Your task to perform on an android device: turn on priority inbox in the gmail app Image 0: 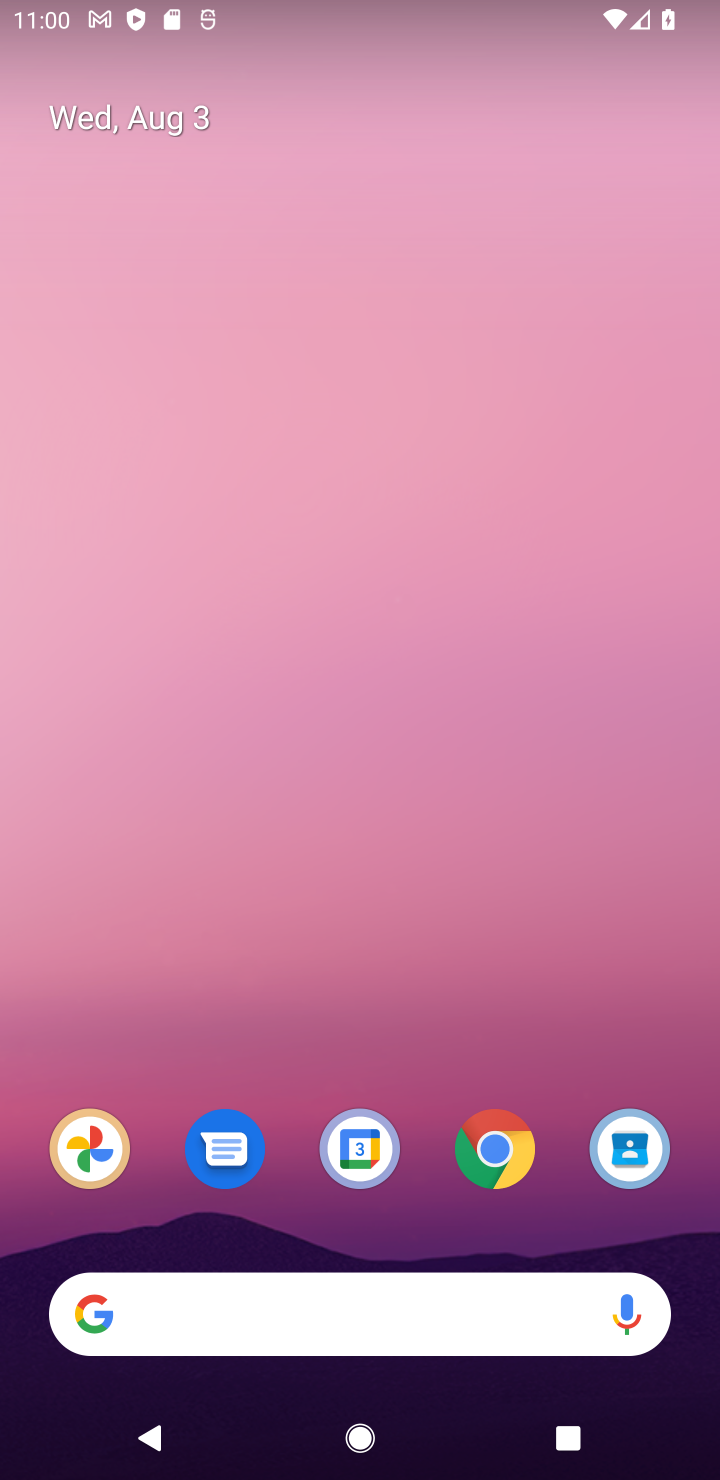
Step 0: drag from (484, 1072) to (431, 37)
Your task to perform on an android device: turn on priority inbox in the gmail app Image 1: 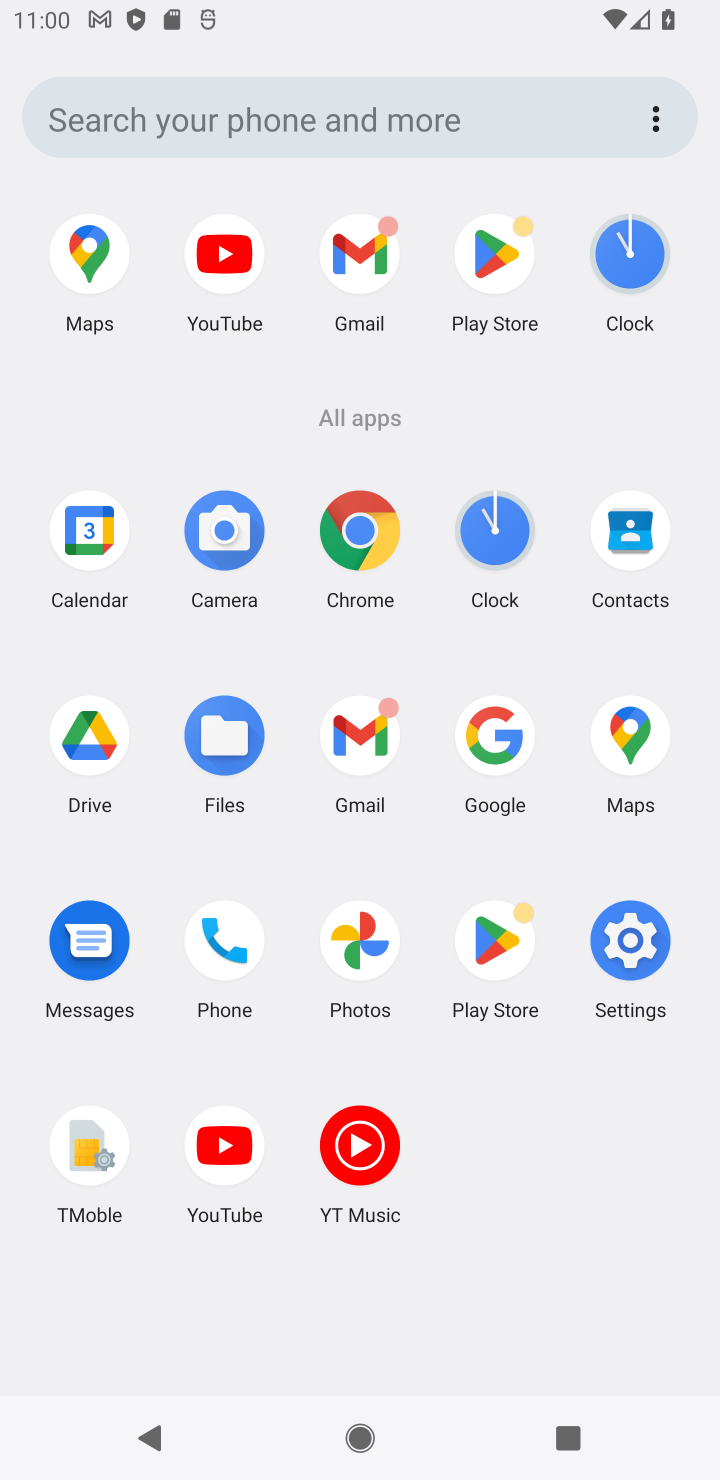
Step 1: click (360, 233)
Your task to perform on an android device: turn on priority inbox in the gmail app Image 2: 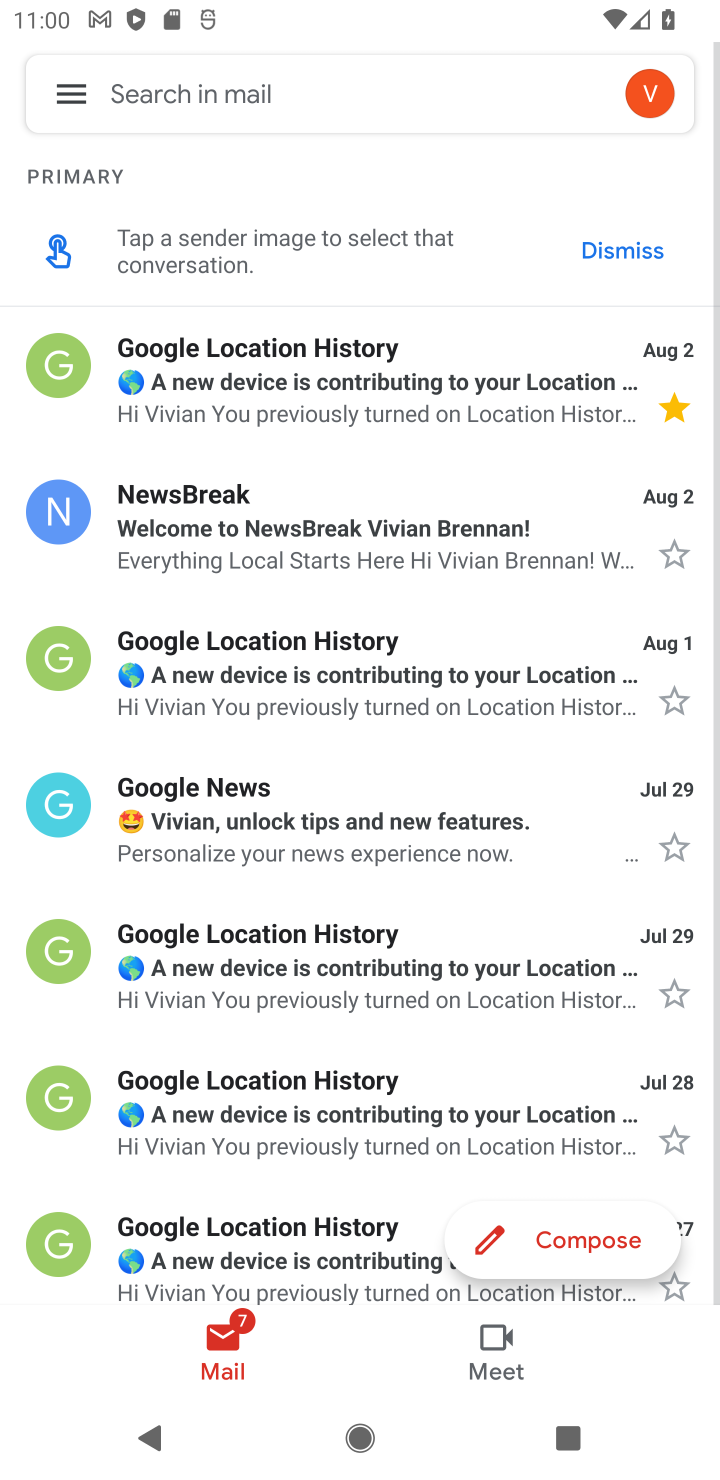
Step 2: click (64, 76)
Your task to perform on an android device: turn on priority inbox in the gmail app Image 3: 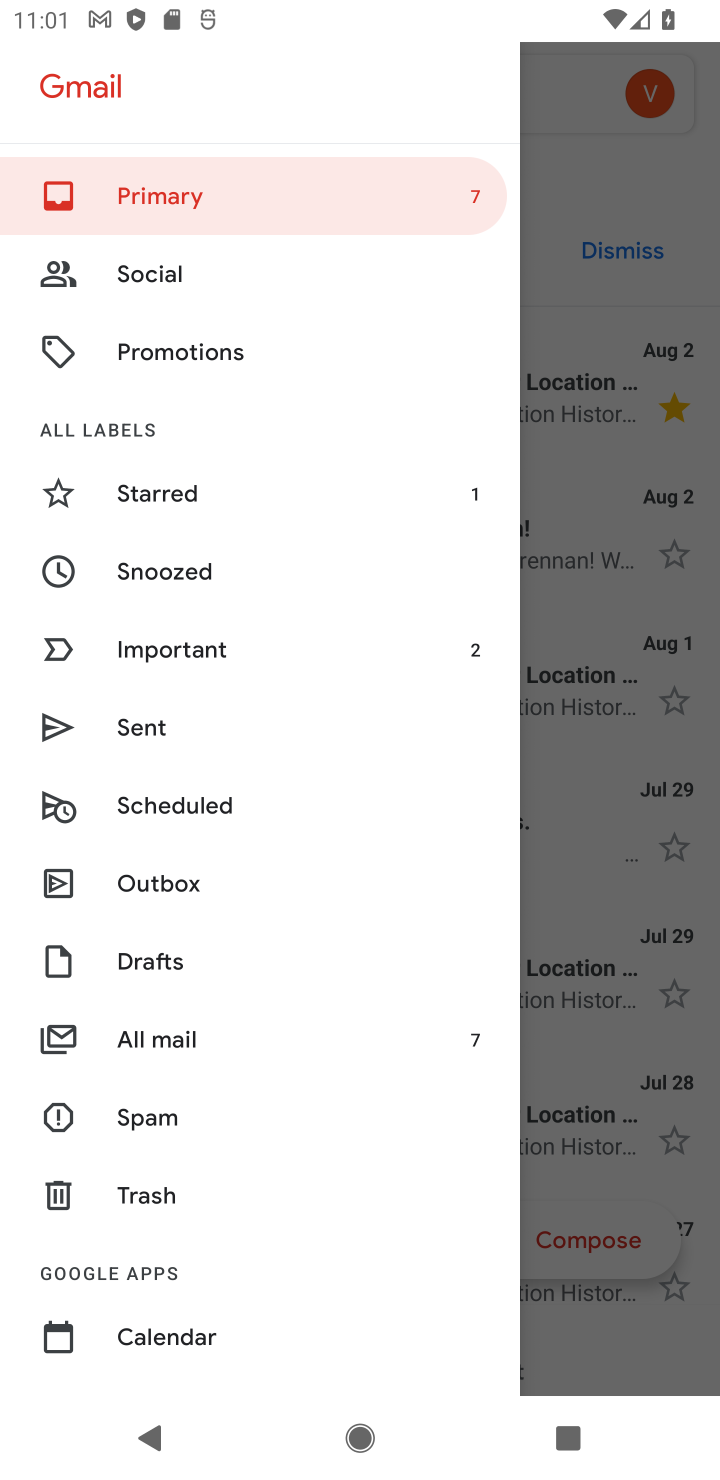
Step 3: drag from (239, 1337) to (201, 325)
Your task to perform on an android device: turn on priority inbox in the gmail app Image 4: 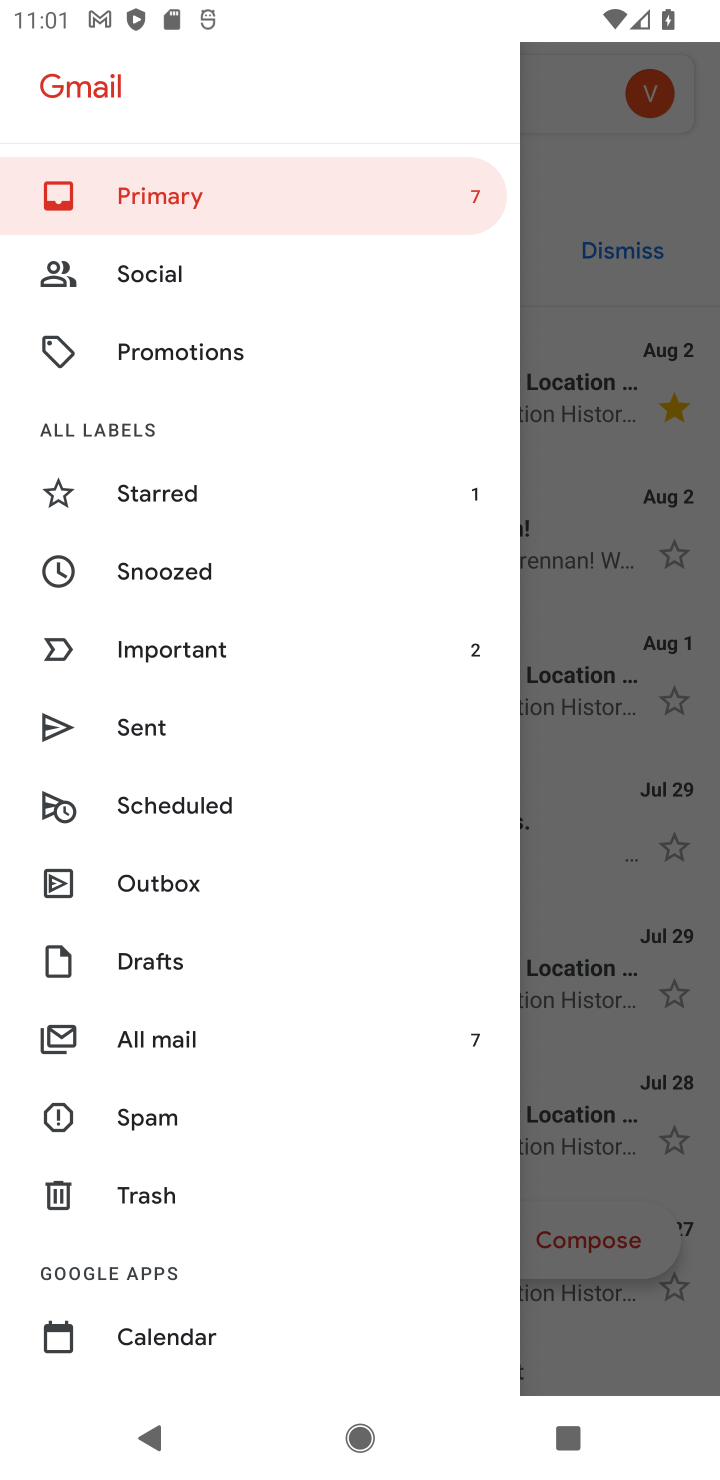
Step 4: drag from (340, 1282) to (299, 444)
Your task to perform on an android device: turn on priority inbox in the gmail app Image 5: 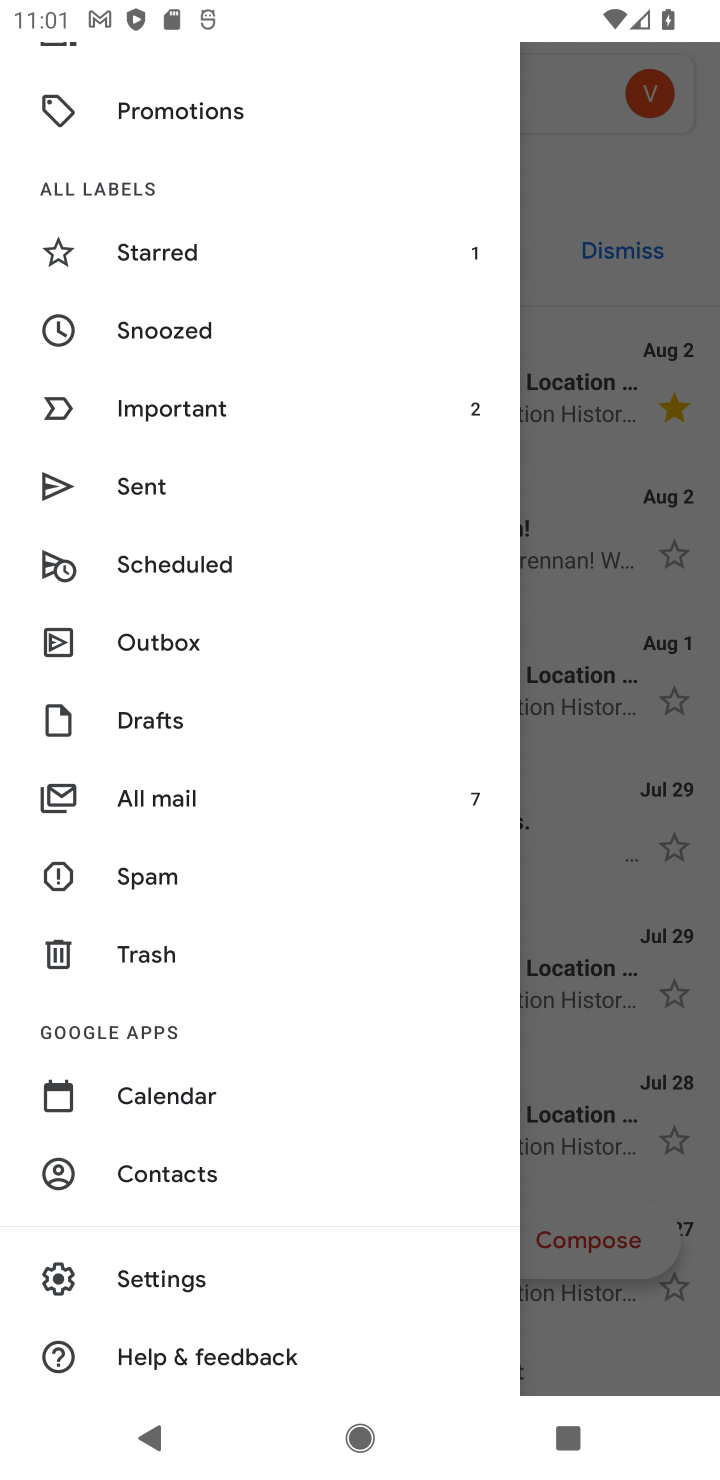
Step 5: click (184, 1266)
Your task to perform on an android device: turn on priority inbox in the gmail app Image 6: 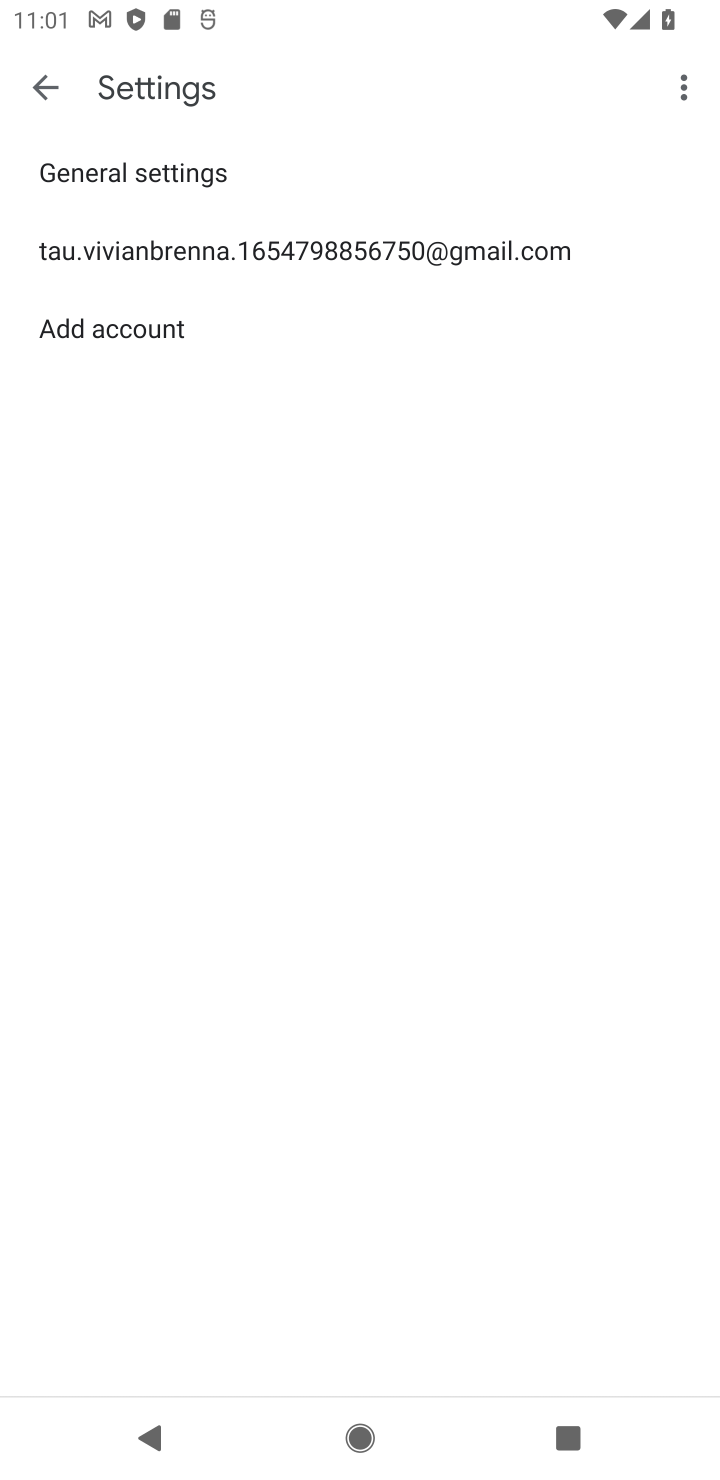
Step 6: click (252, 249)
Your task to perform on an android device: turn on priority inbox in the gmail app Image 7: 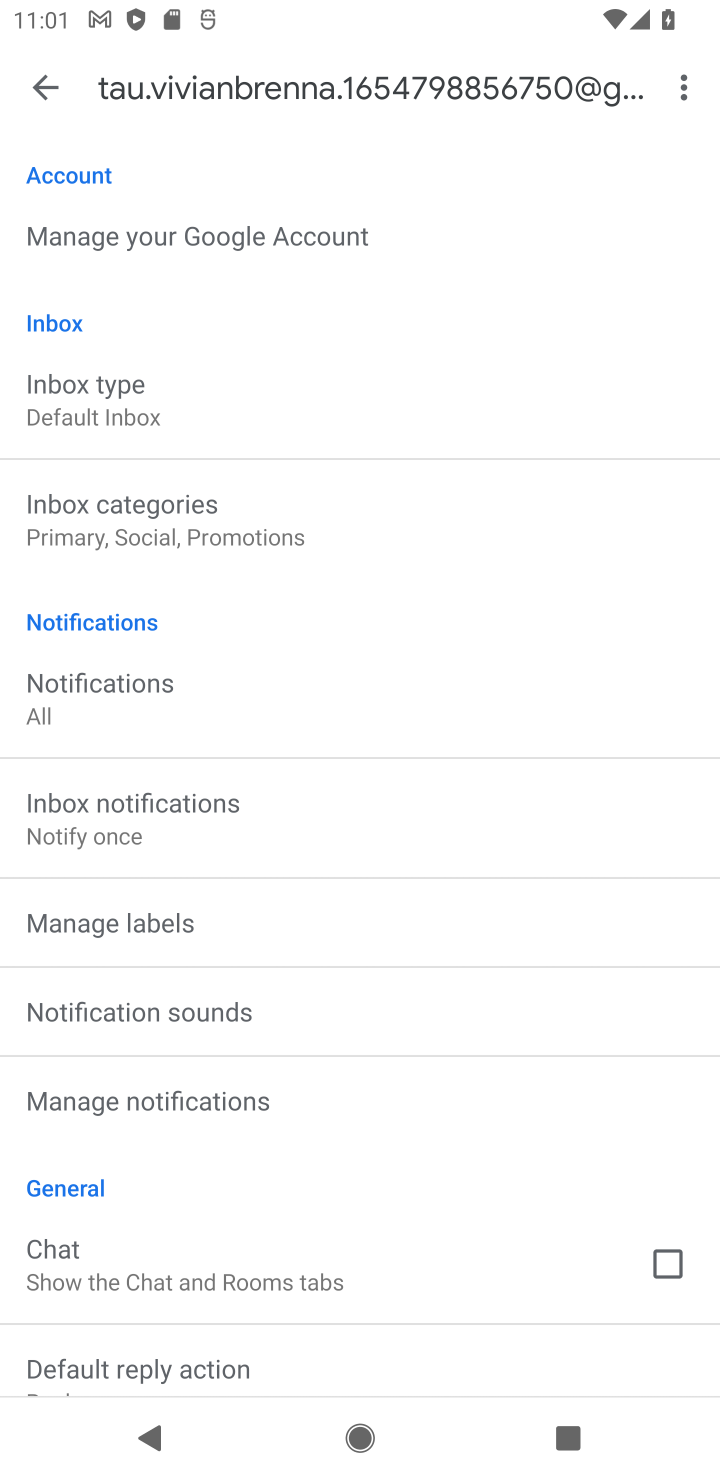
Step 7: click (198, 406)
Your task to perform on an android device: turn on priority inbox in the gmail app Image 8: 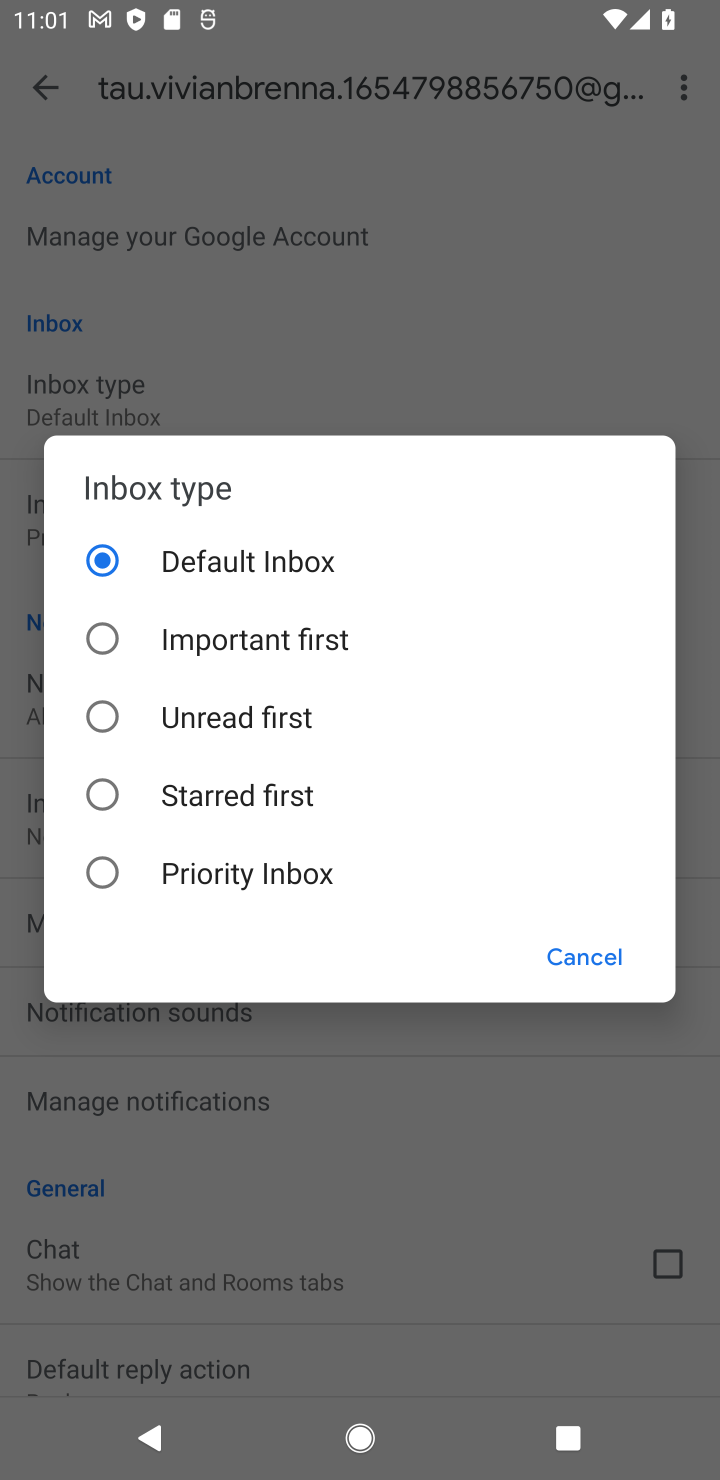
Step 8: click (245, 871)
Your task to perform on an android device: turn on priority inbox in the gmail app Image 9: 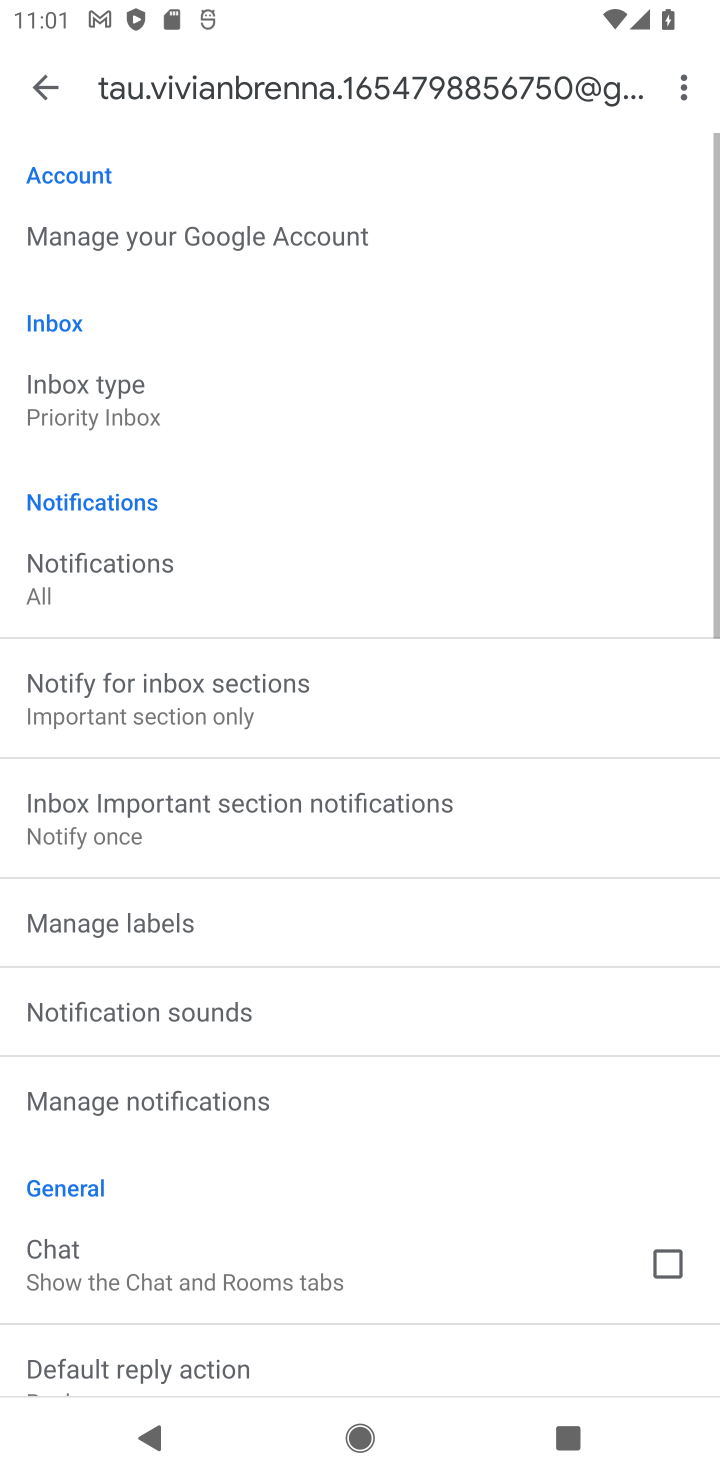
Step 9: task complete